Your task to perform on an android device: open app "Grab" (install if not already installed) and go to login screen Image 0: 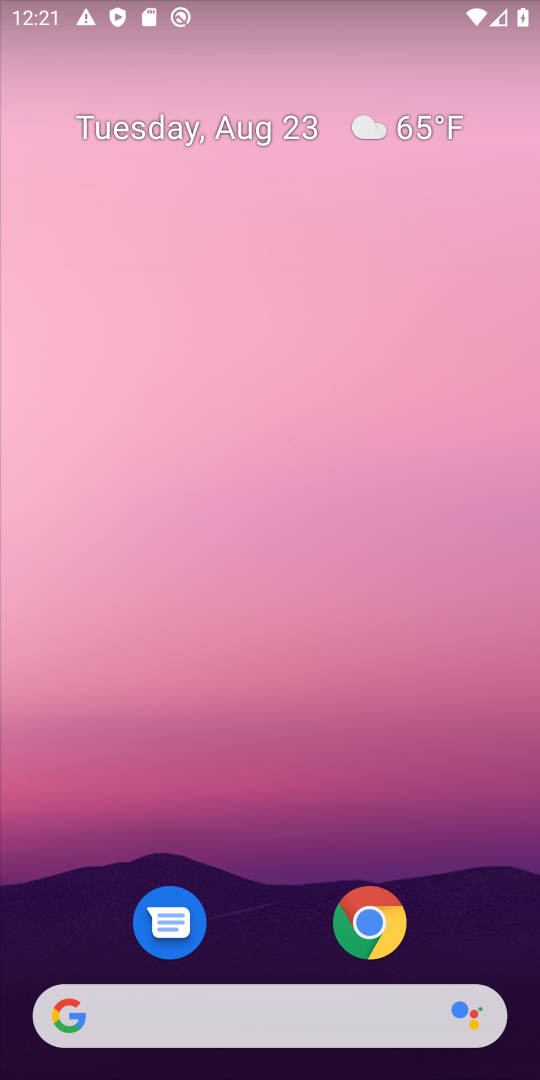
Step 0: drag from (287, 911) to (423, 59)
Your task to perform on an android device: open app "Grab" (install if not already installed) and go to login screen Image 1: 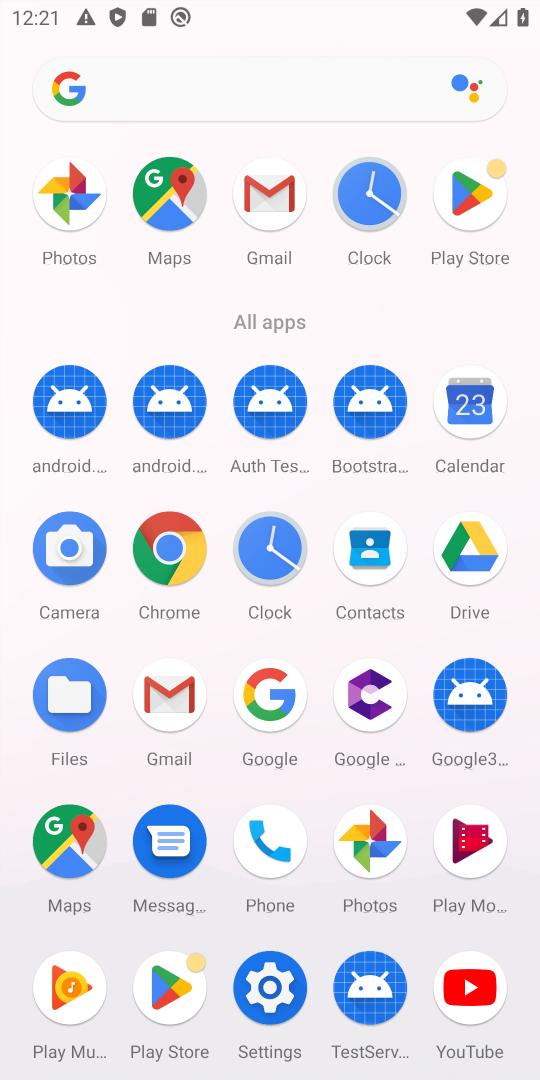
Step 1: click (467, 209)
Your task to perform on an android device: open app "Grab" (install if not already installed) and go to login screen Image 2: 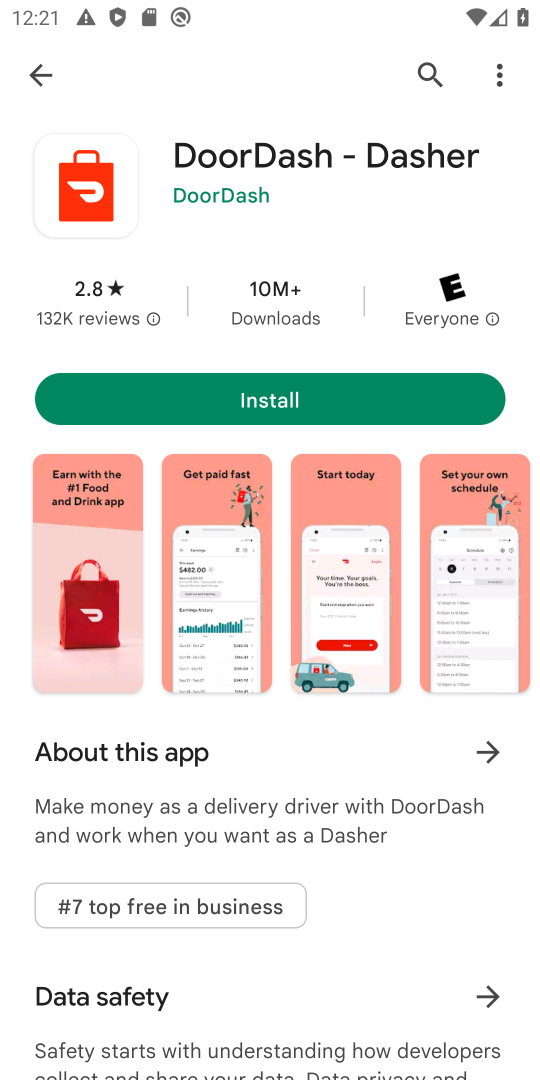
Step 2: click (40, 68)
Your task to perform on an android device: open app "Grab" (install if not already installed) and go to login screen Image 3: 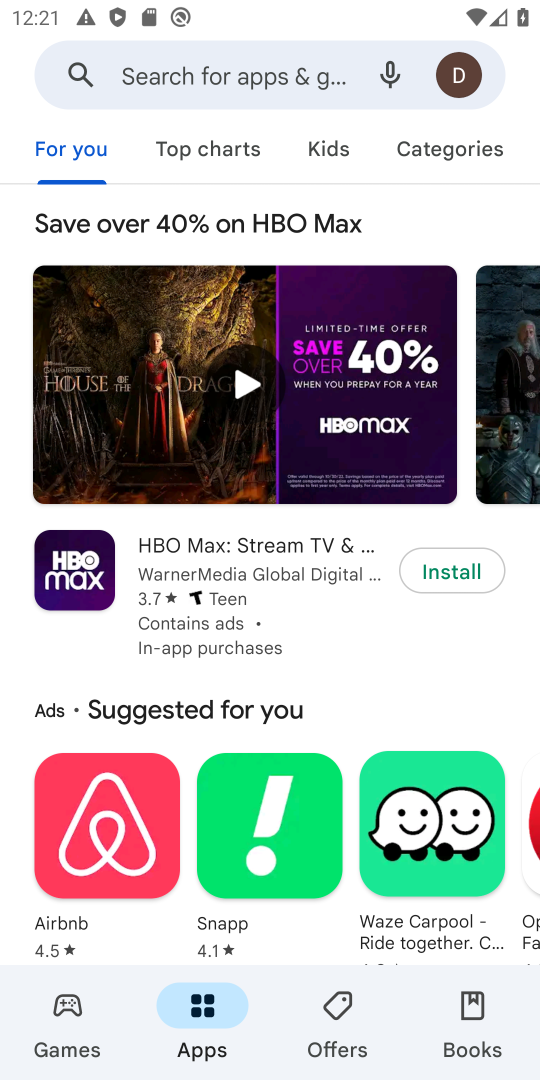
Step 3: click (210, 73)
Your task to perform on an android device: open app "Grab" (install if not already installed) and go to login screen Image 4: 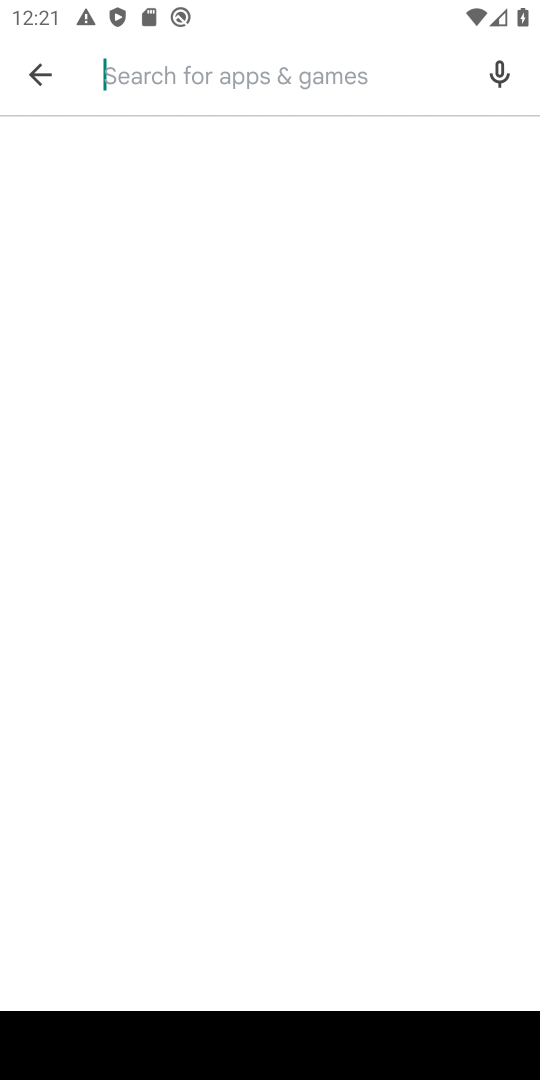
Step 4: type "Grab"
Your task to perform on an android device: open app "Grab" (install if not already installed) and go to login screen Image 5: 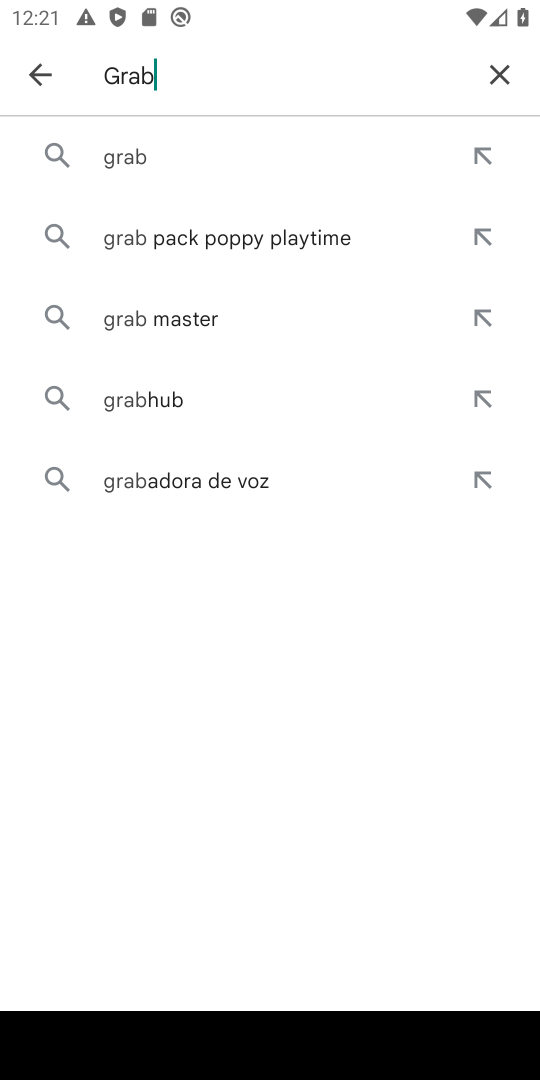
Step 5: click (157, 174)
Your task to perform on an android device: open app "Grab" (install if not already installed) and go to login screen Image 6: 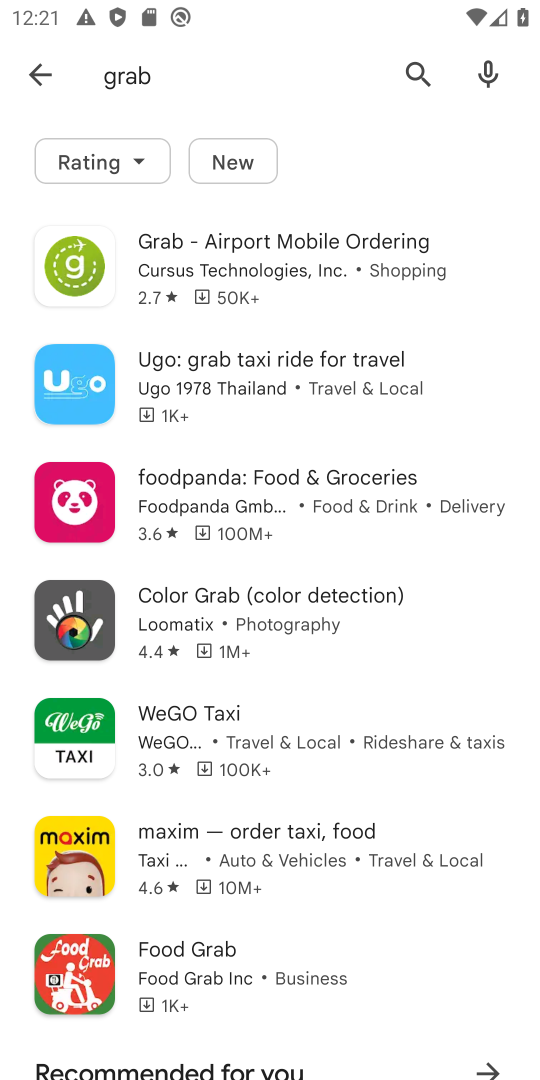
Step 6: click (244, 286)
Your task to perform on an android device: open app "Grab" (install if not already installed) and go to login screen Image 7: 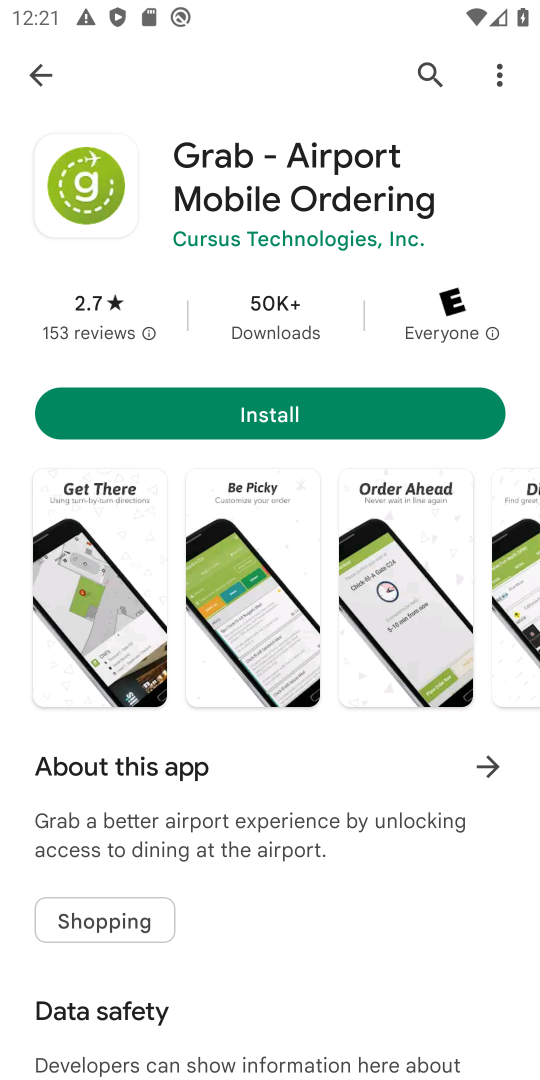
Step 7: click (250, 405)
Your task to perform on an android device: open app "Grab" (install if not already installed) and go to login screen Image 8: 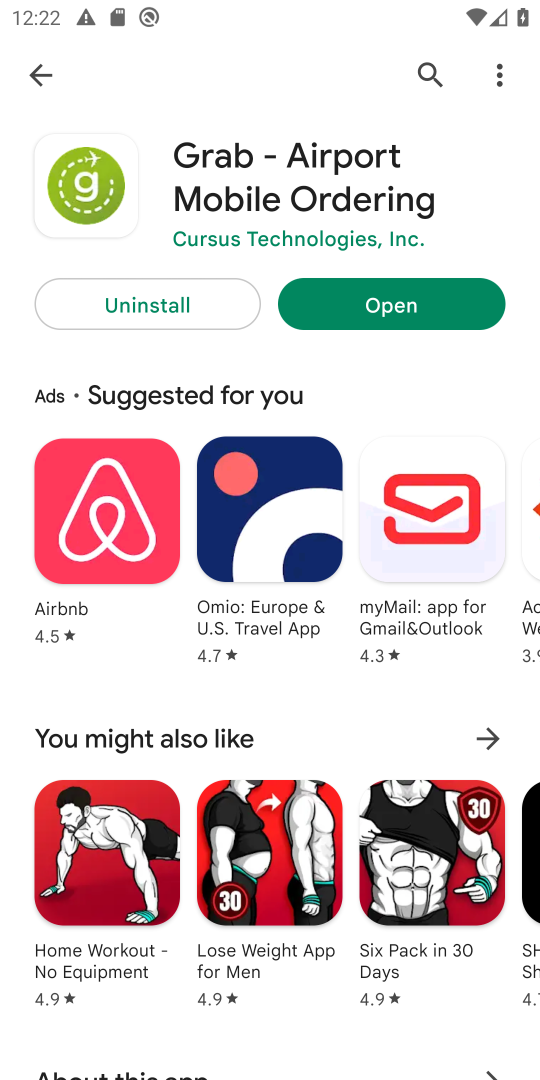
Step 8: click (373, 298)
Your task to perform on an android device: open app "Grab" (install if not already installed) and go to login screen Image 9: 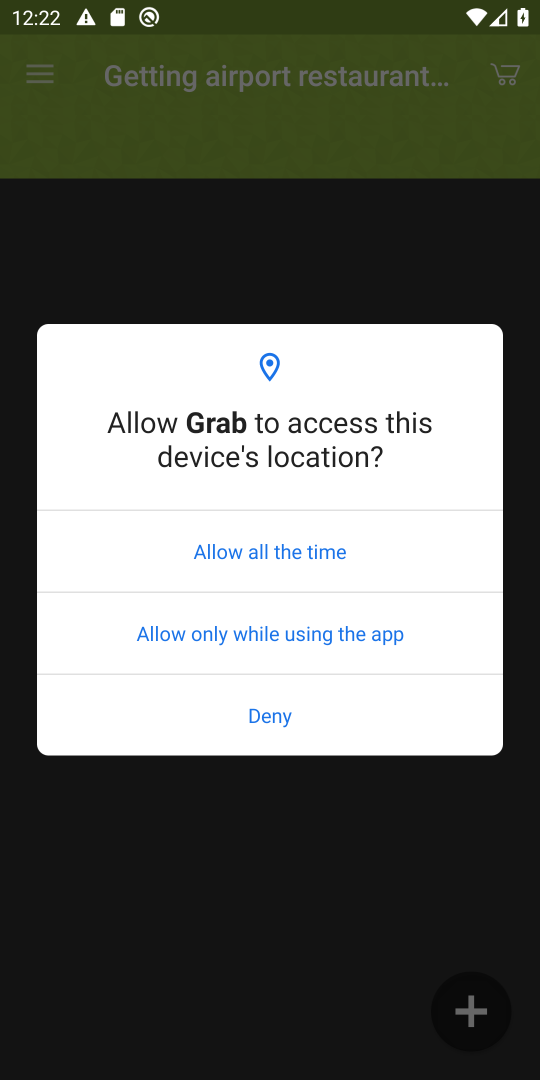
Step 9: click (317, 555)
Your task to perform on an android device: open app "Grab" (install if not already installed) and go to login screen Image 10: 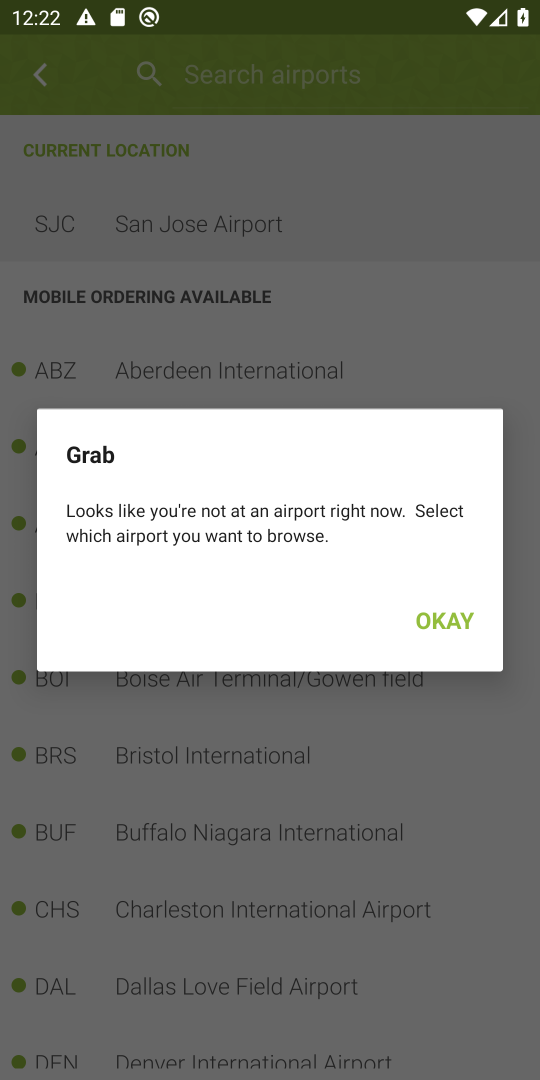
Step 10: click (487, 616)
Your task to perform on an android device: open app "Grab" (install if not already installed) and go to login screen Image 11: 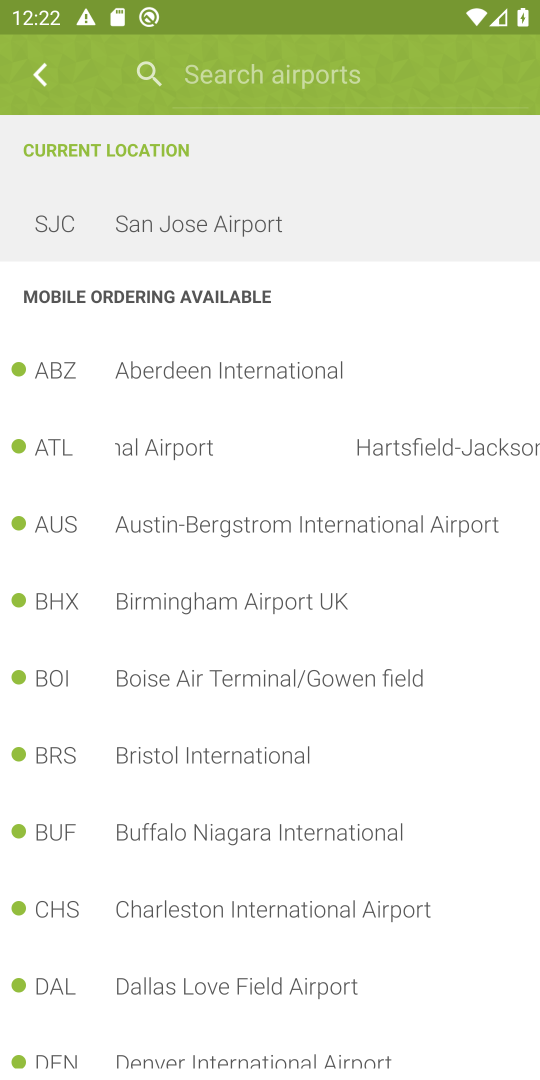
Step 11: task complete